Your task to perform on an android device: toggle notifications settings in the gmail app Image 0: 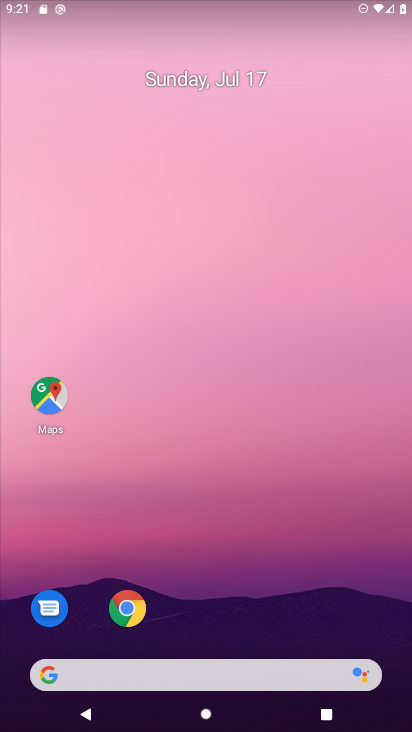
Step 0: drag from (201, 679) to (306, 219)
Your task to perform on an android device: toggle notifications settings in the gmail app Image 1: 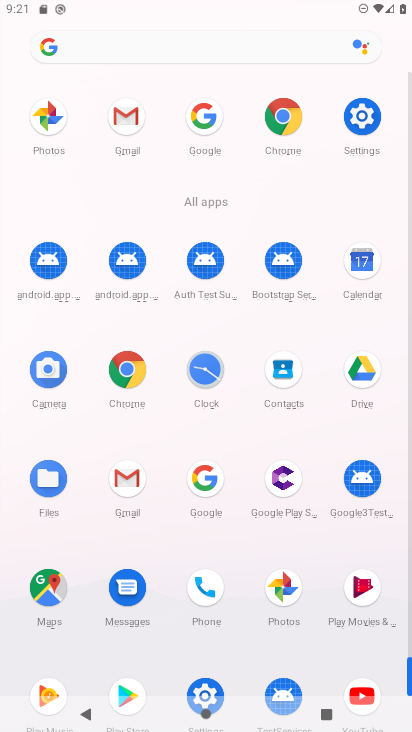
Step 1: click (123, 115)
Your task to perform on an android device: toggle notifications settings in the gmail app Image 2: 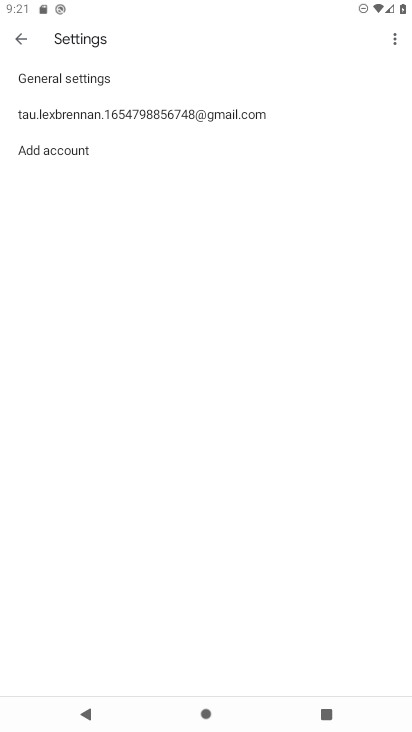
Step 2: click (149, 112)
Your task to perform on an android device: toggle notifications settings in the gmail app Image 3: 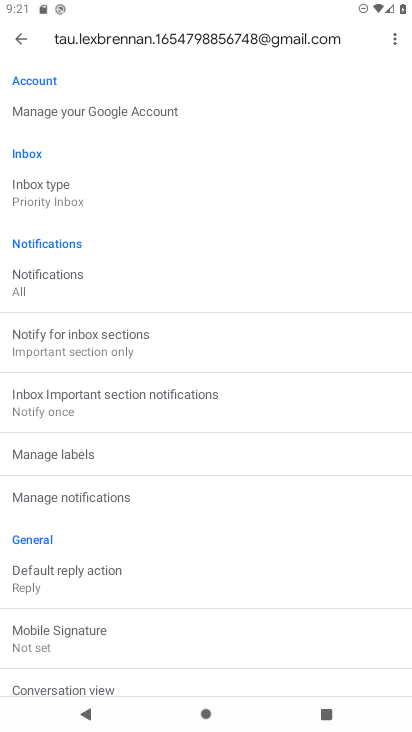
Step 3: click (76, 497)
Your task to perform on an android device: toggle notifications settings in the gmail app Image 4: 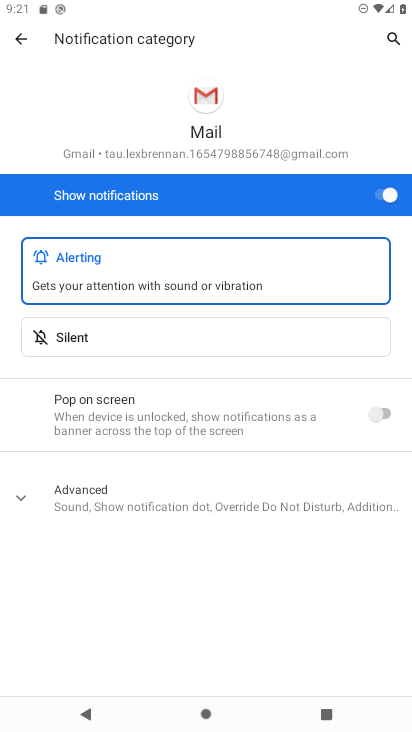
Step 4: click (384, 192)
Your task to perform on an android device: toggle notifications settings in the gmail app Image 5: 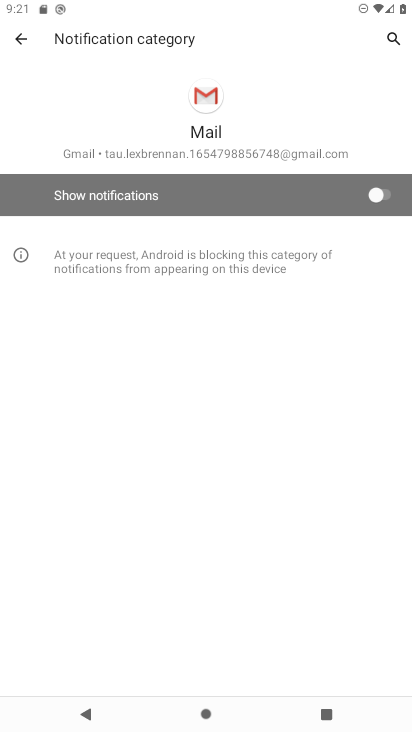
Step 5: task complete